Your task to perform on an android device: Show me recent news Image 0: 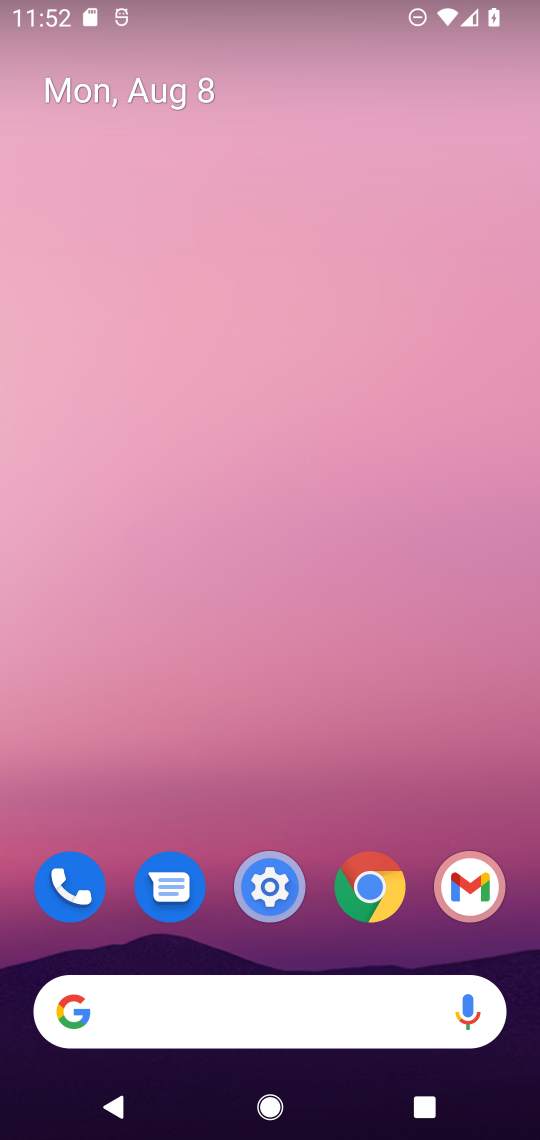
Step 0: drag from (16, 379) to (504, 428)
Your task to perform on an android device: Show me recent news Image 1: 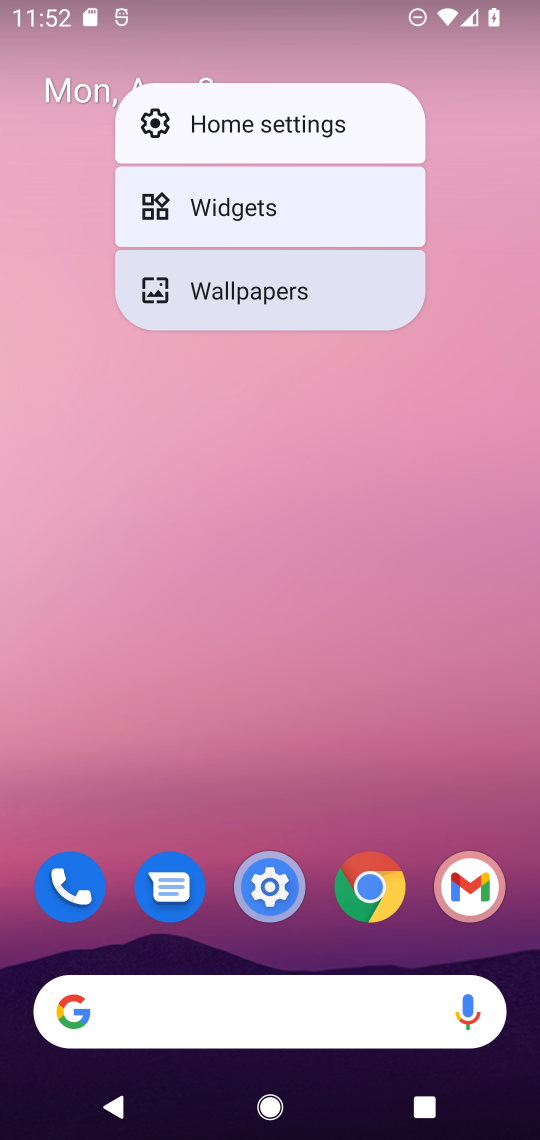
Step 1: click (318, 581)
Your task to perform on an android device: Show me recent news Image 2: 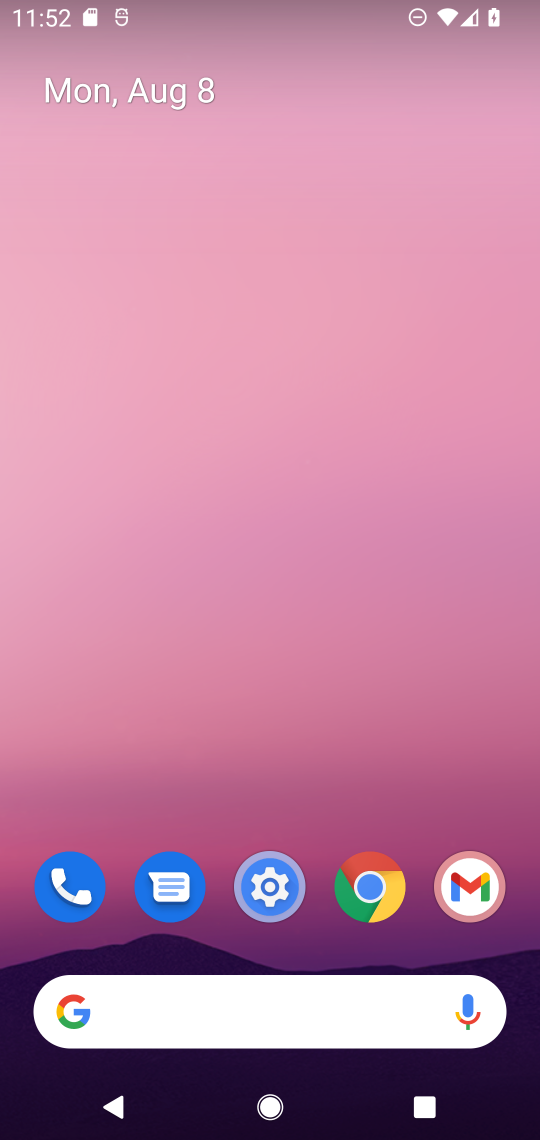
Step 2: task complete